Your task to perform on an android device: Clear all items from cart on costco.com. Add acer predator to the cart on costco.com Image 0: 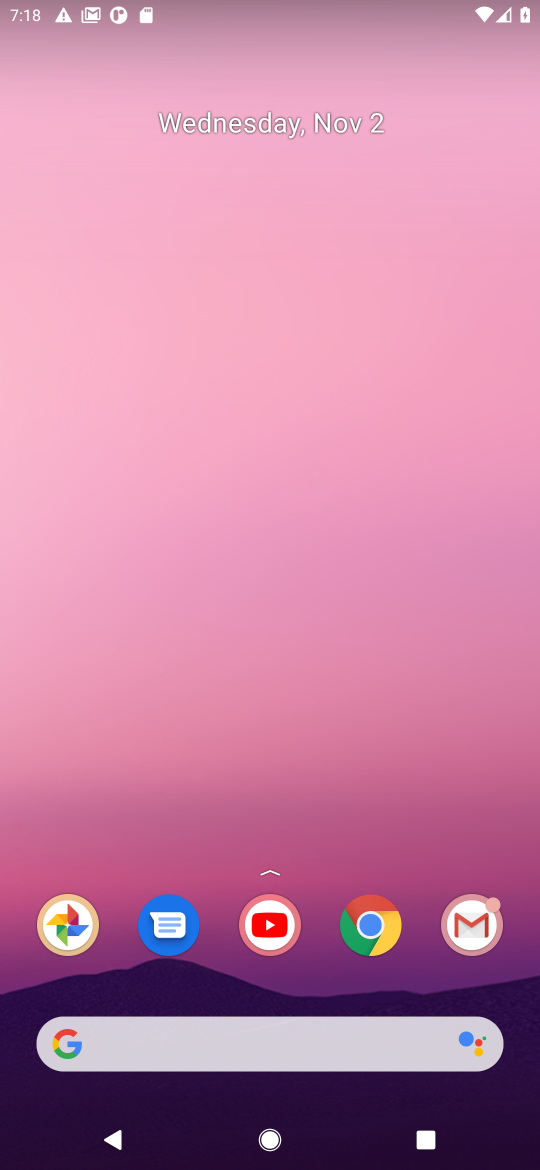
Step 0: click (104, 1038)
Your task to perform on an android device: Clear all items from cart on costco.com. Add acer predator to the cart on costco.com Image 1: 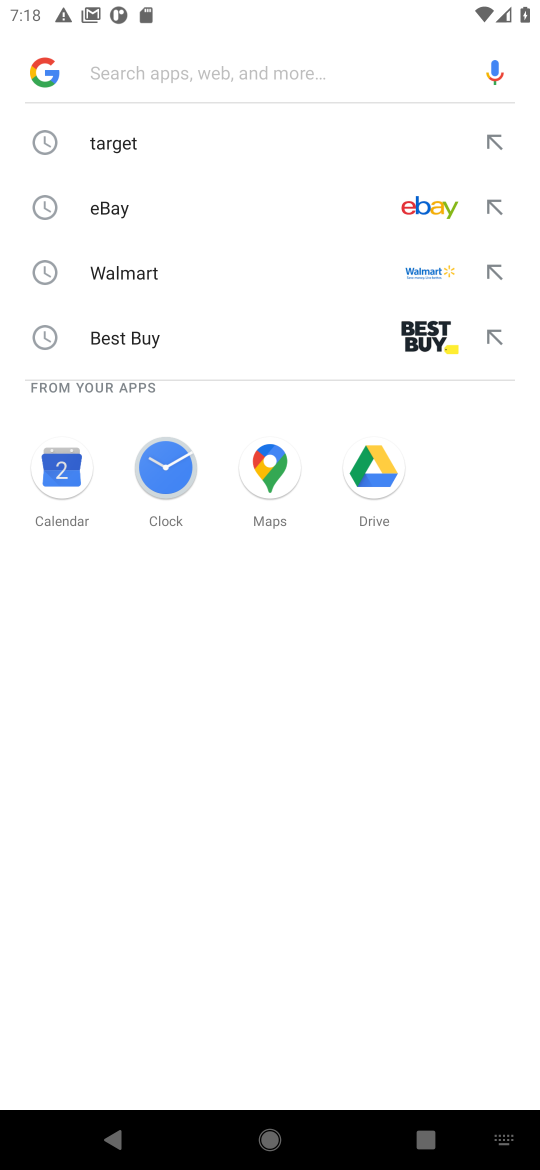
Step 1: type "costco.com"
Your task to perform on an android device: Clear all items from cart on costco.com. Add acer predator to the cart on costco.com Image 2: 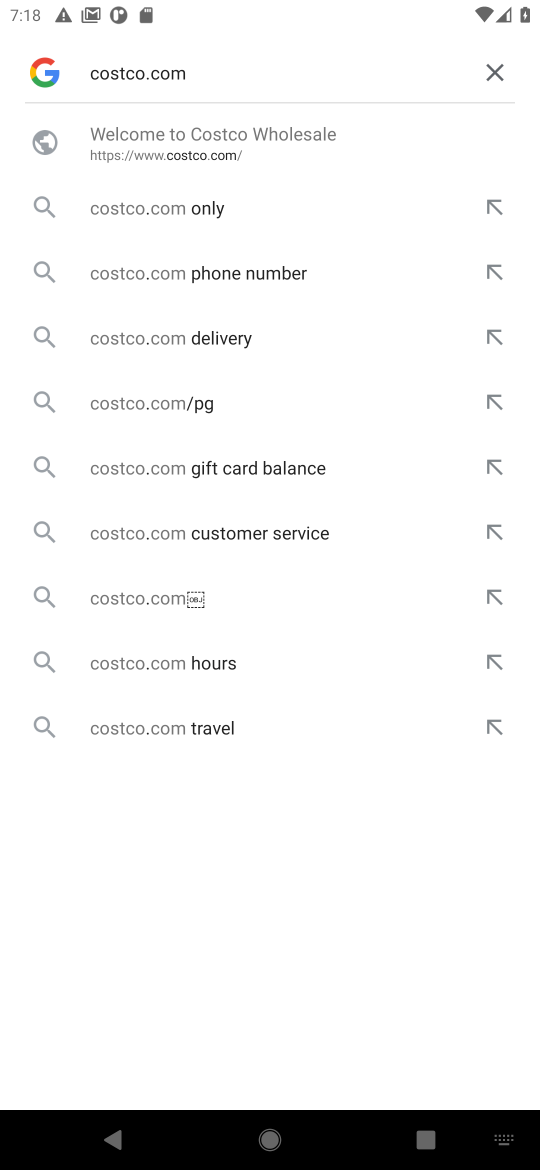
Step 2: press enter
Your task to perform on an android device: Clear all items from cart on costco.com. Add acer predator to the cart on costco.com Image 3: 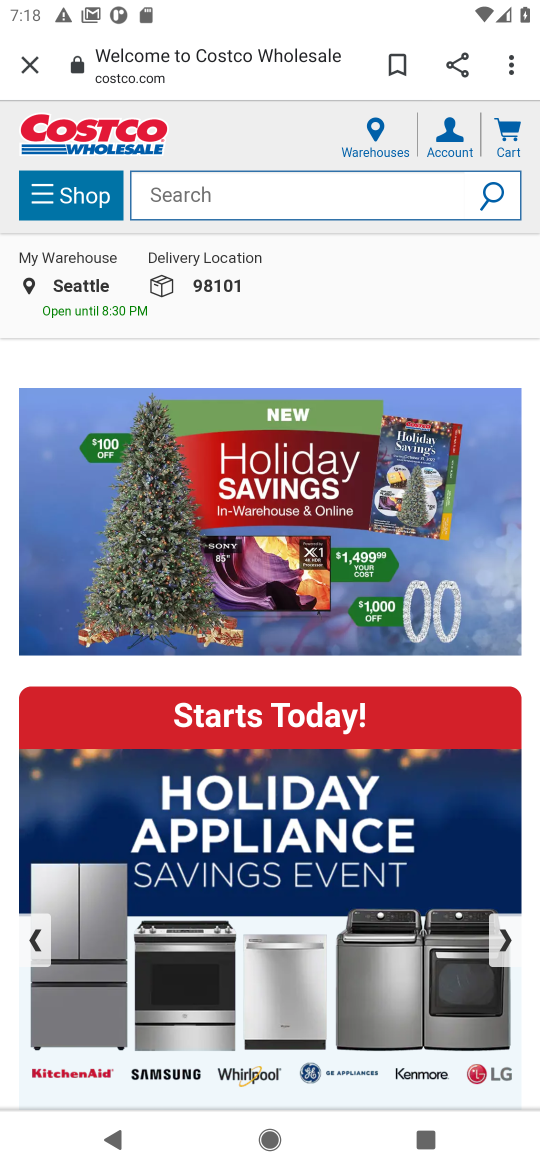
Step 3: click (506, 135)
Your task to perform on an android device: Clear all items from cart on costco.com. Add acer predator to the cart on costco.com Image 4: 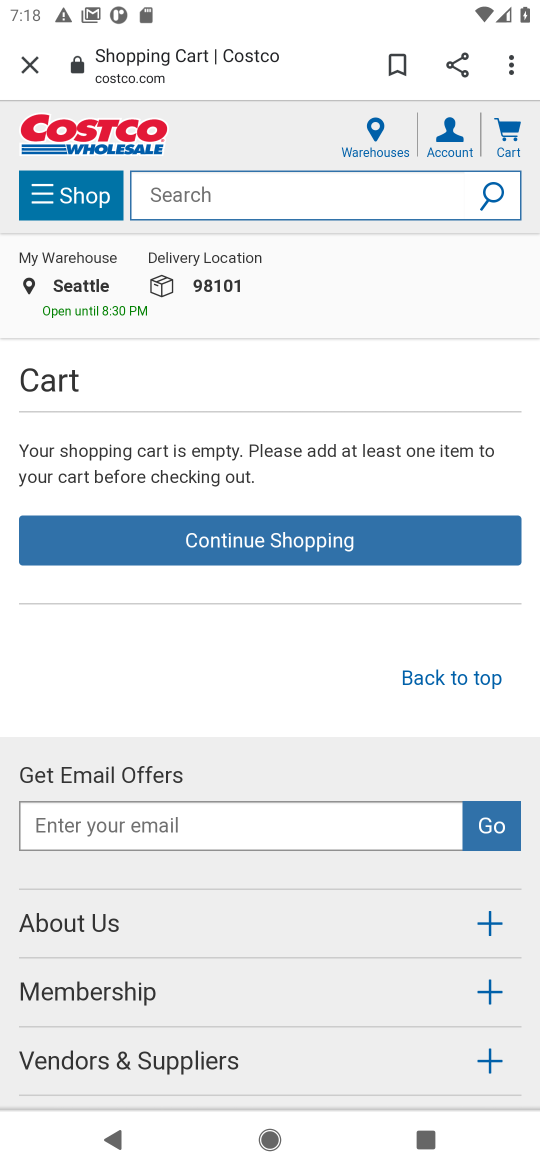
Step 4: click (156, 186)
Your task to perform on an android device: Clear all items from cart on costco.com. Add acer predator to the cart on costco.com Image 5: 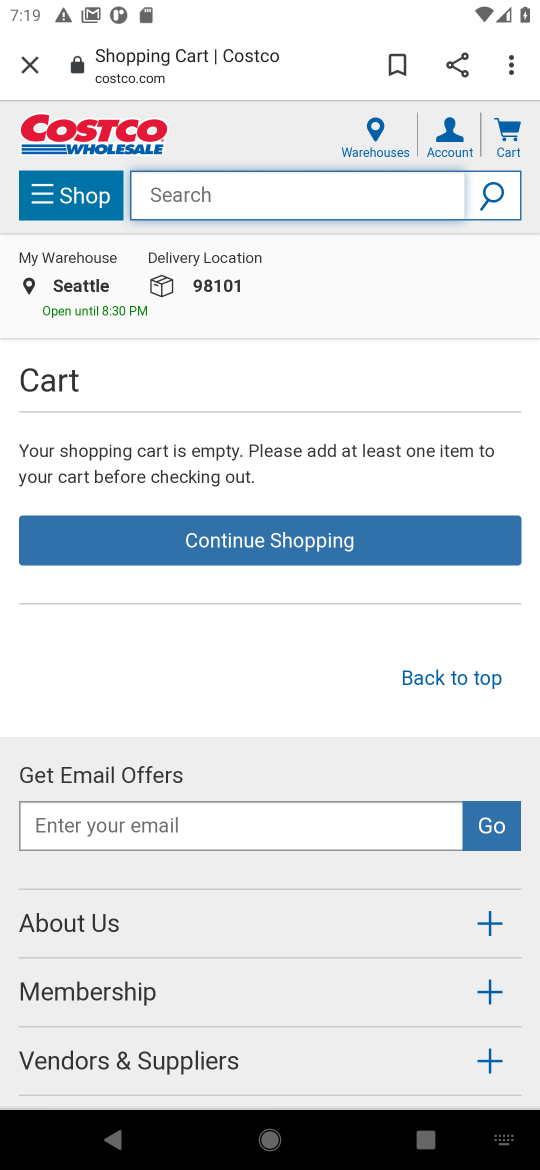
Step 5: type "acer predator"
Your task to perform on an android device: Clear all items from cart on costco.com. Add acer predator to the cart on costco.com Image 6: 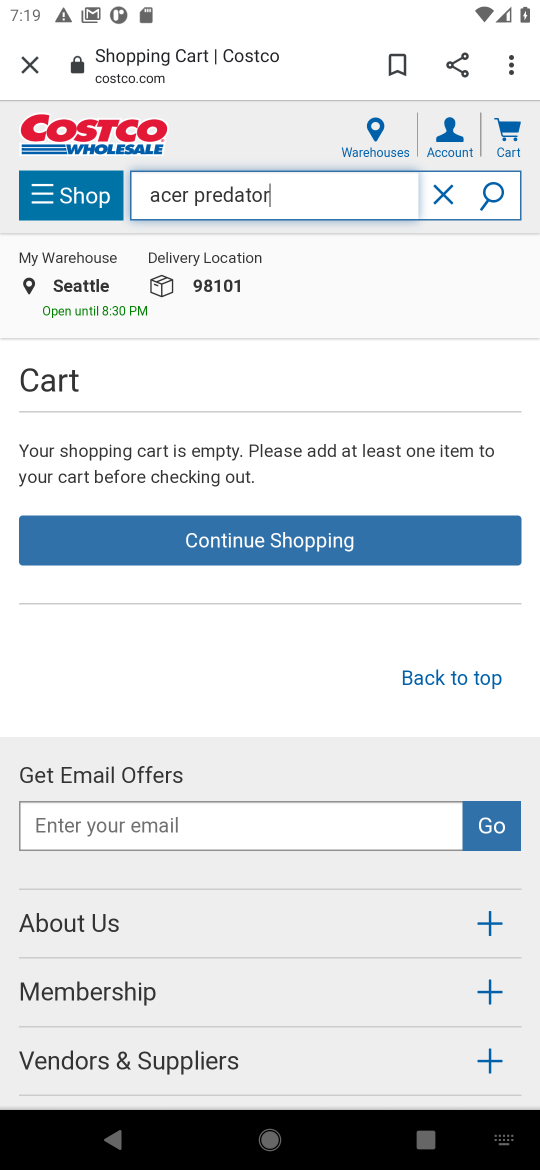
Step 6: press enter
Your task to perform on an android device: Clear all items from cart on costco.com. Add acer predator to the cart on costco.com Image 7: 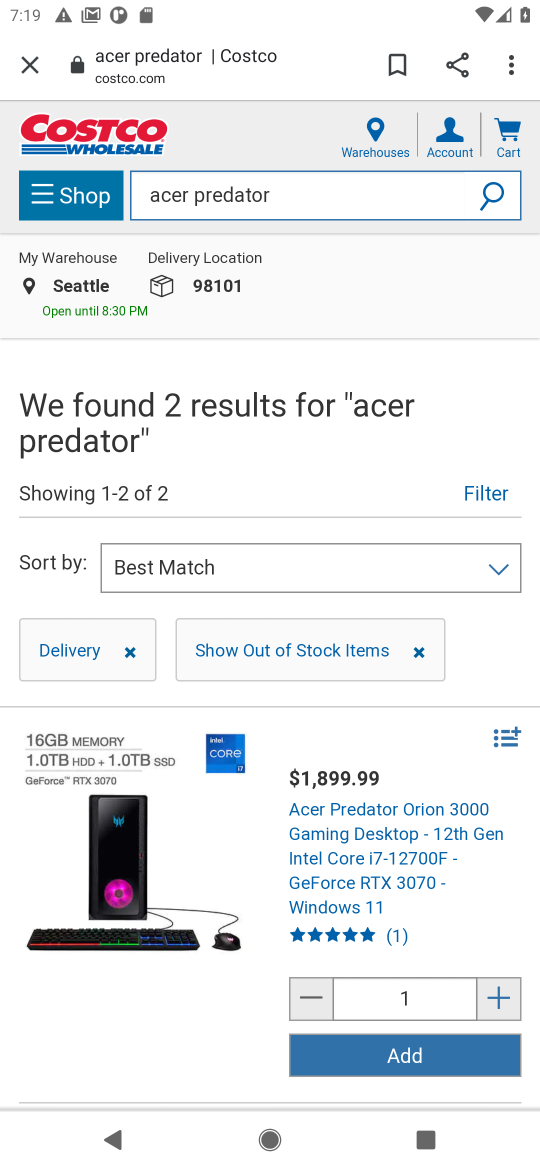
Step 7: drag from (321, 896) to (346, 572)
Your task to perform on an android device: Clear all items from cart on costco.com. Add acer predator to the cart on costco.com Image 8: 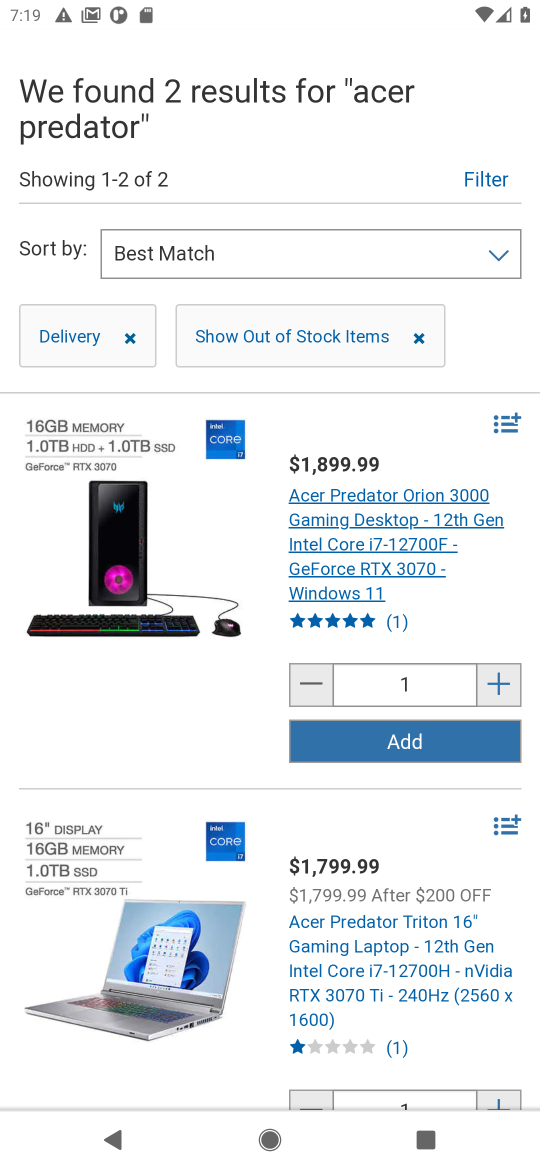
Step 8: click (383, 745)
Your task to perform on an android device: Clear all items from cart on costco.com. Add acer predator to the cart on costco.com Image 9: 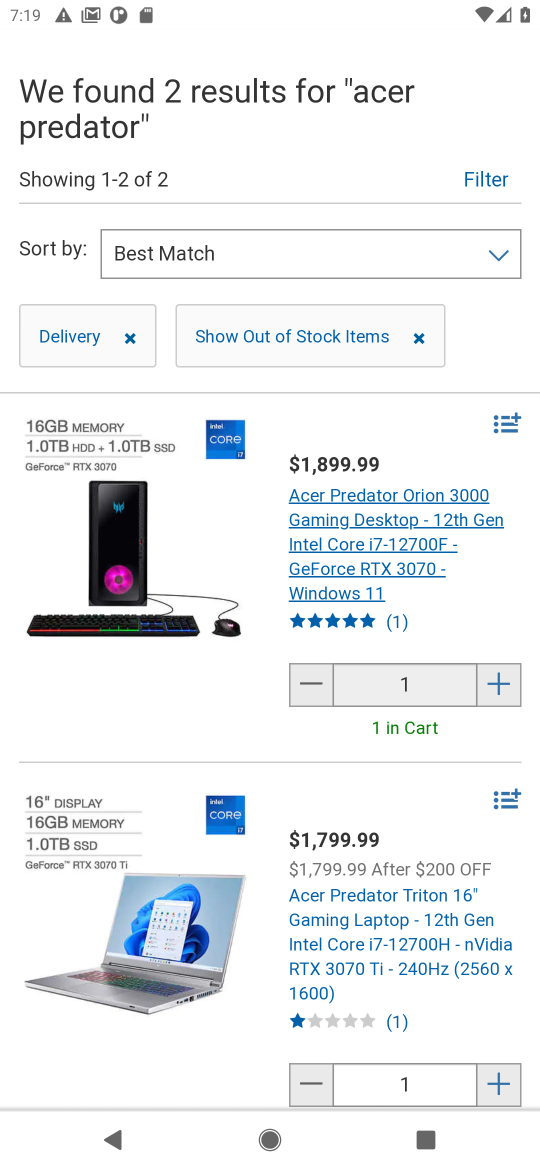
Step 9: task complete